Your task to perform on an android device: Go to Google maps Image 0: 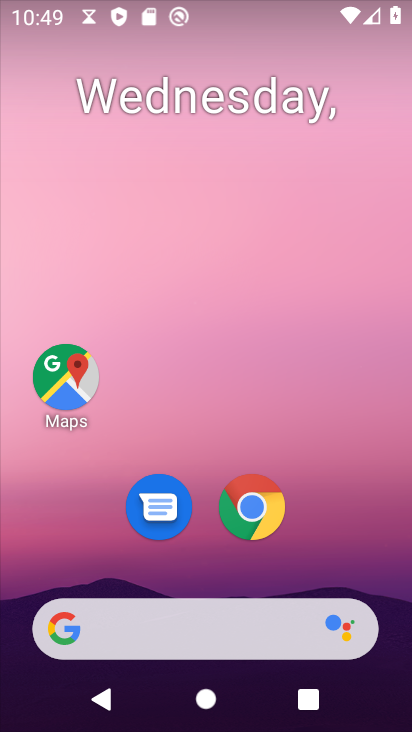
Step 0: drag from (256, 665) to (284, 115)
Your task to perform on an android device: Go to Google maps Image 1: 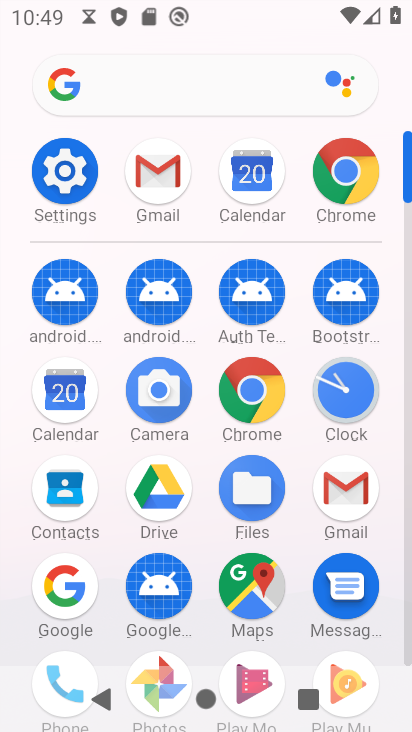
Step 1: click (257, 563)
Your task to perform on an android device: Go to Google maps Image 2: 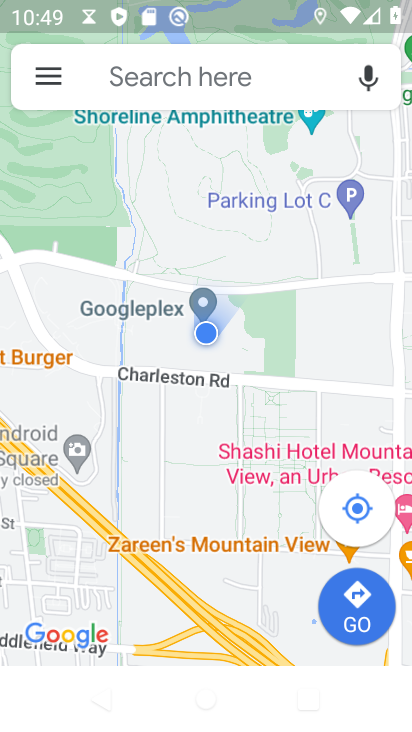
Step 2: task complete